Your task to perform on an android device: turn on location history Image 0: 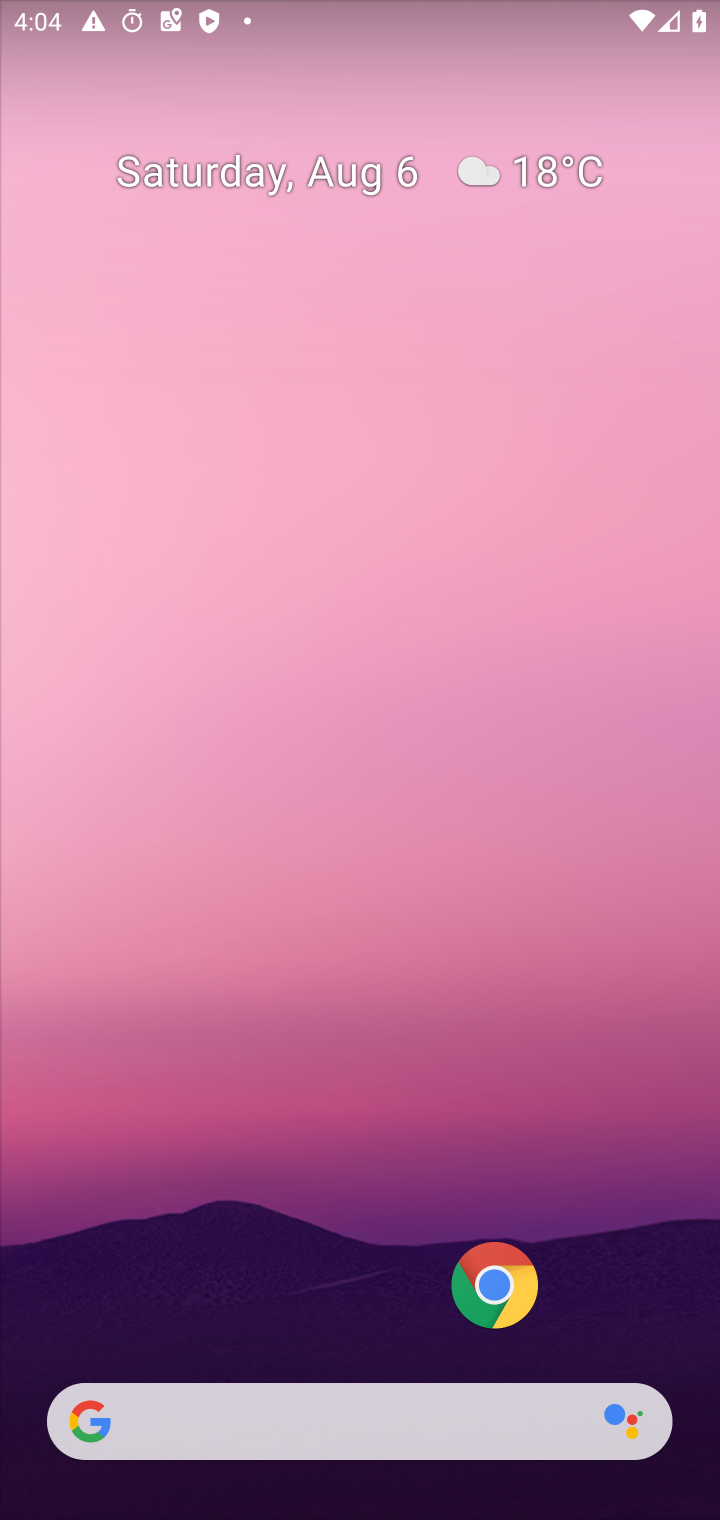
Step 0: press home button
Your task to perform on an android device: turn on location history Image 1: 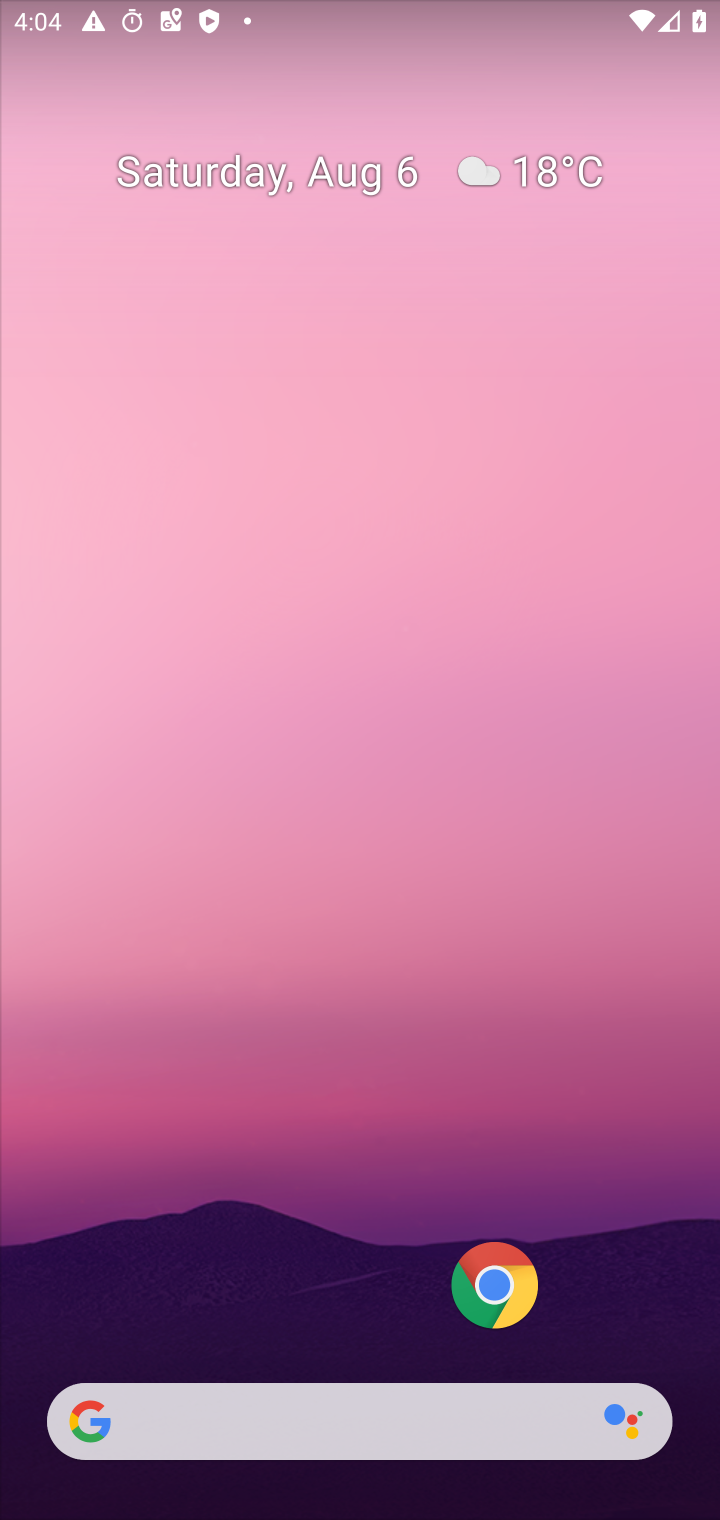
Step 1: drag from (363, 1131) to (380, 146)
Your task to perform on an android device: turn on location history Image 2: 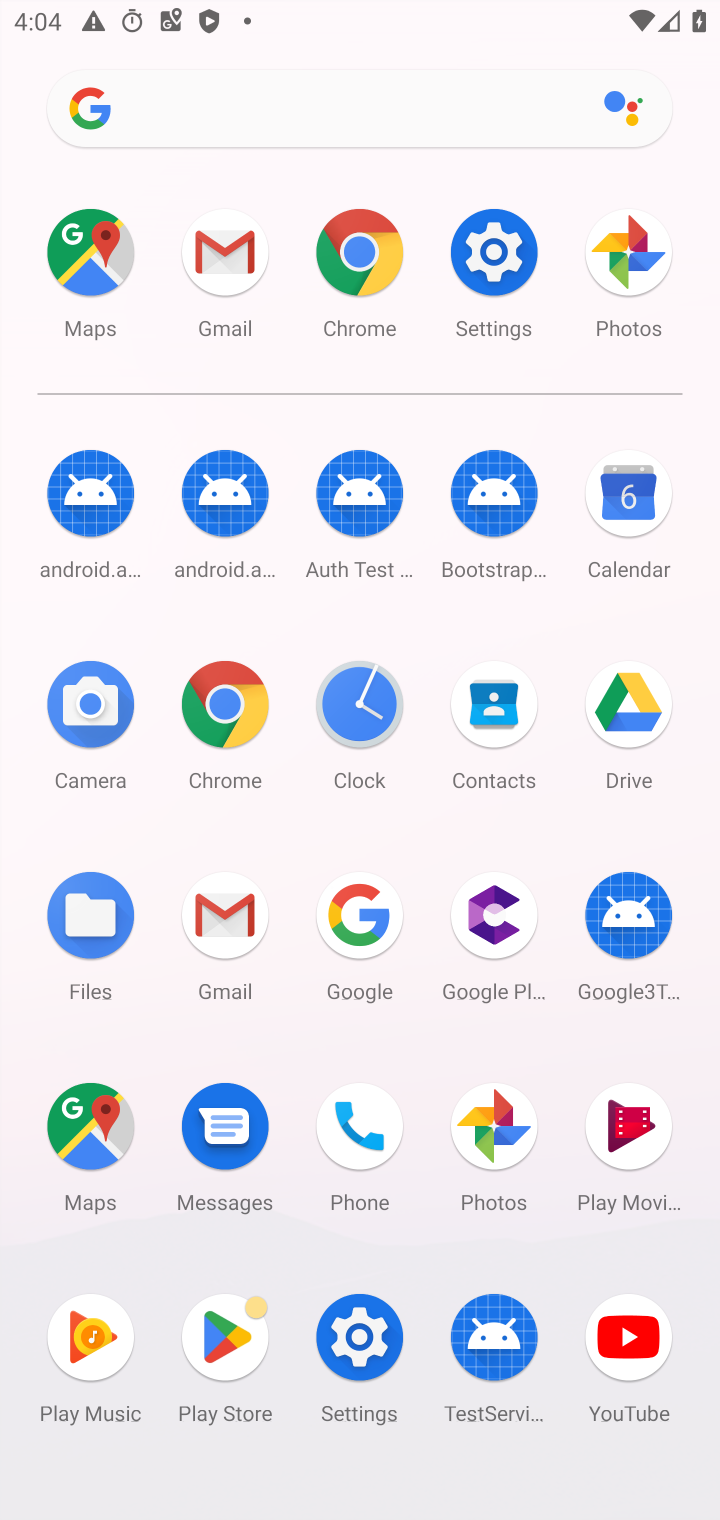
Step 2: click (489, 240)
Your task to perform on an android device: turn on location history Image 3: 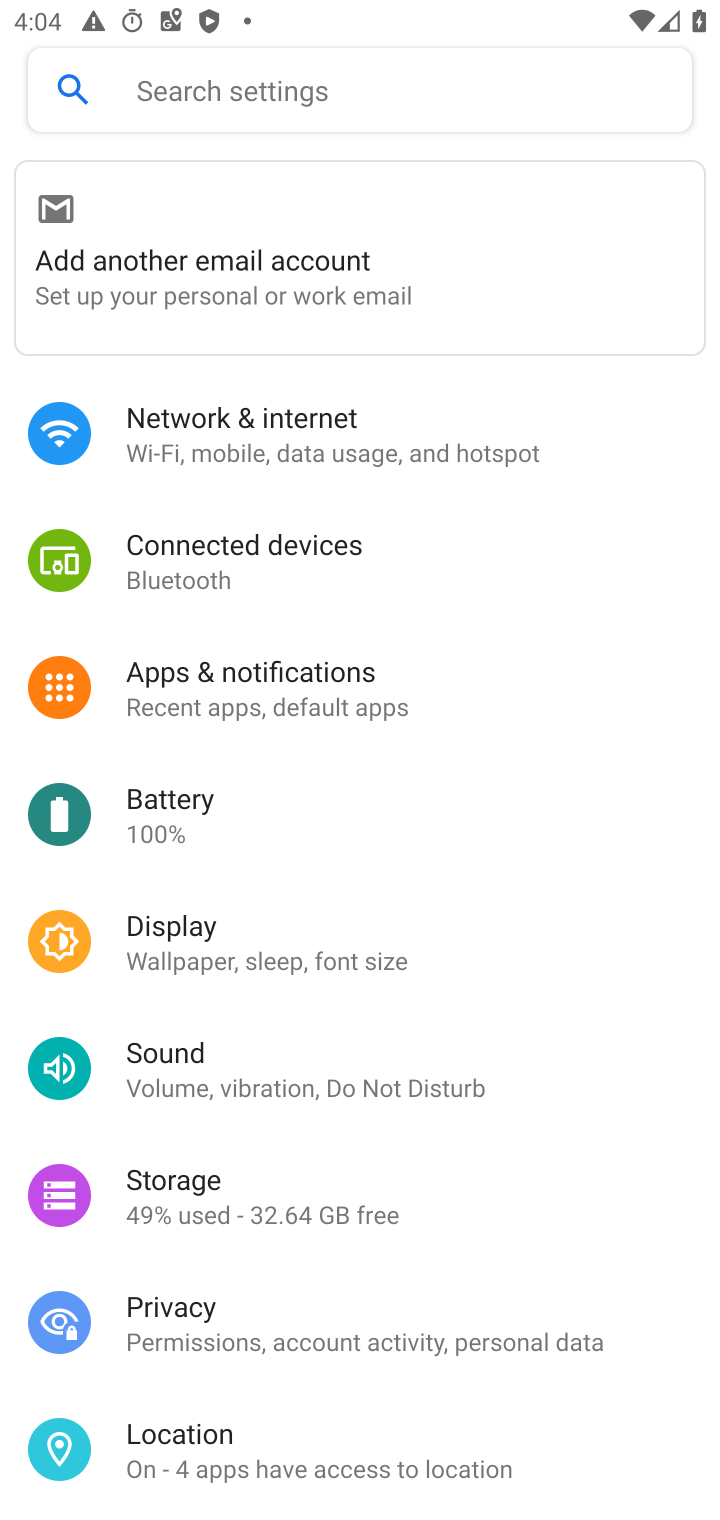
Step 3: click (263, 1438)
Your task to perform on an android device: turn on location history Image 4: 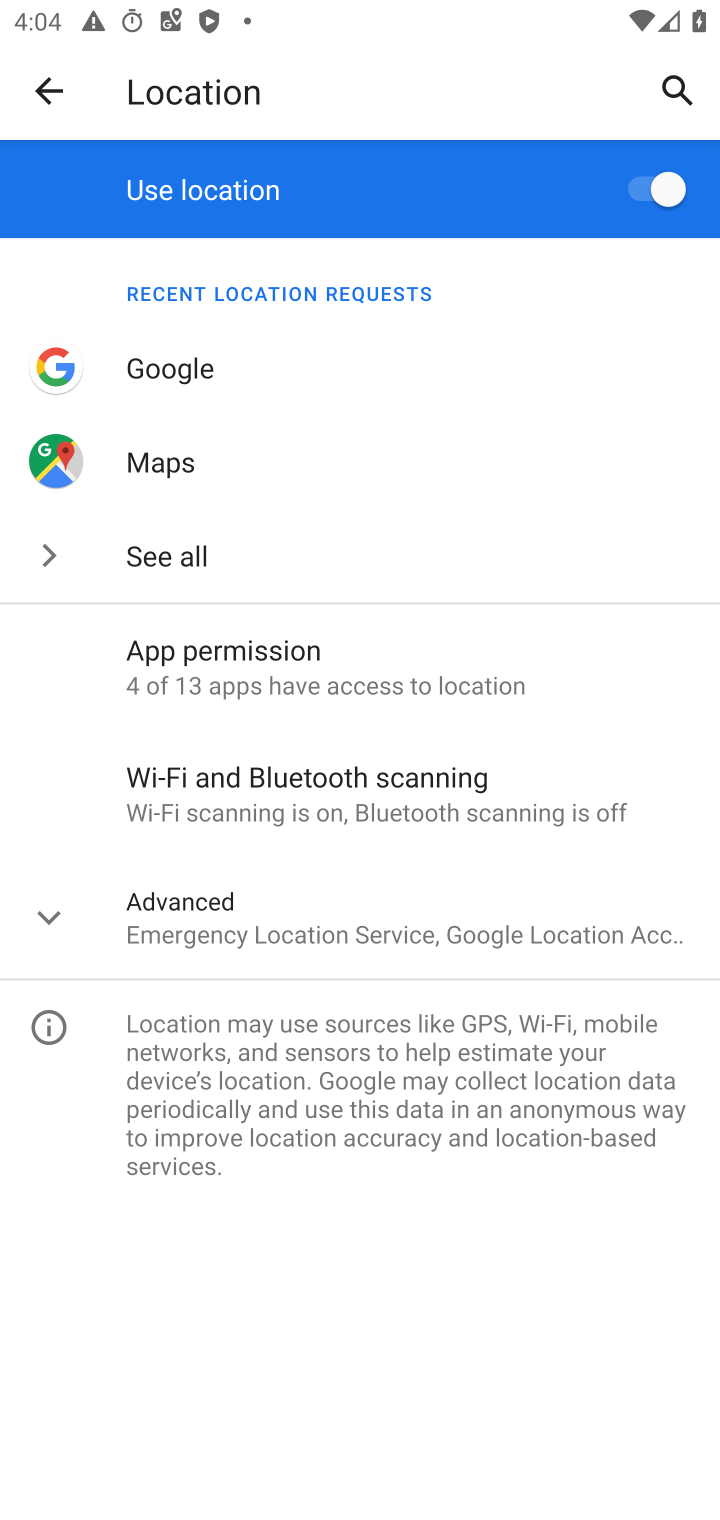
Step 4: click (121, 901)
Your task to perform on an android device: turn on location history Image 5: 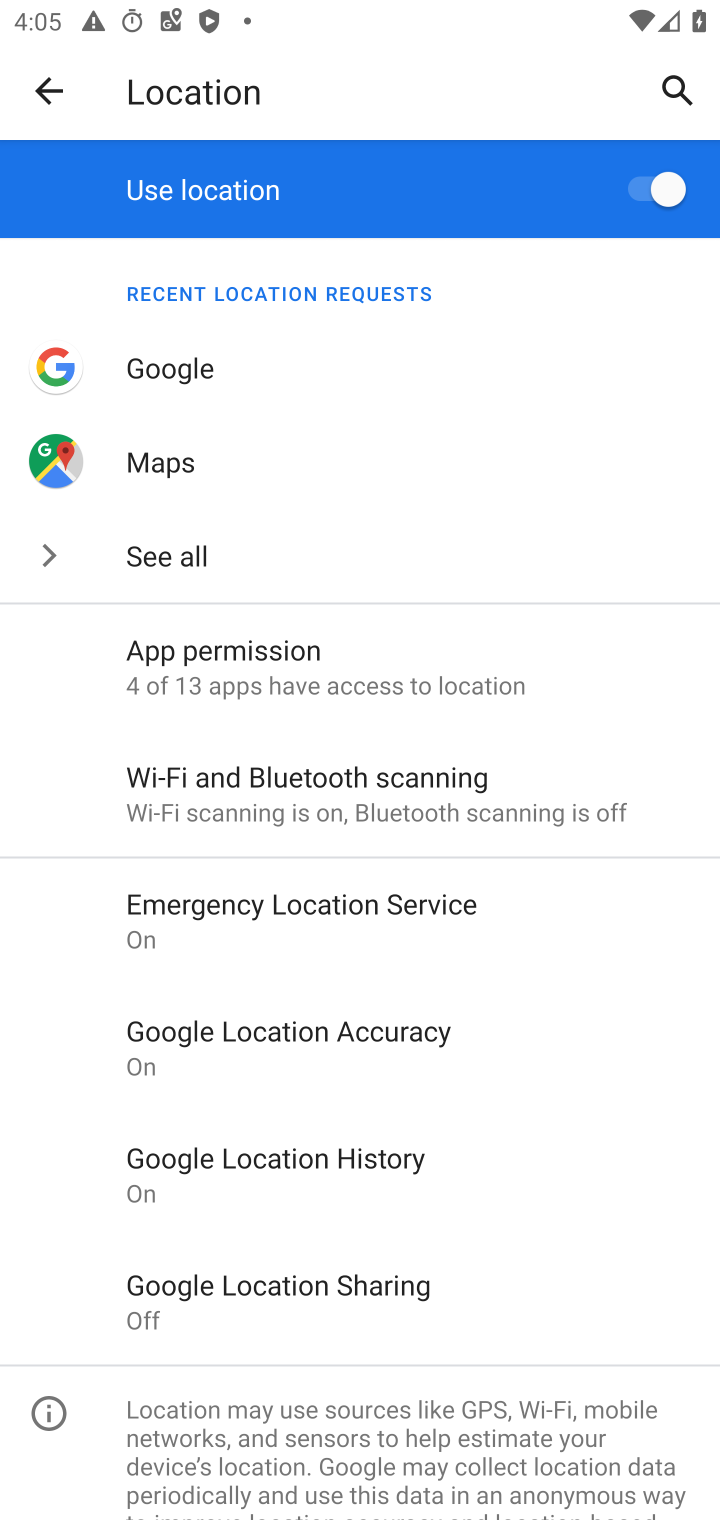
Step 5: click (338, 1161)
Your task to perform on an android device: turn on location history Image 6: 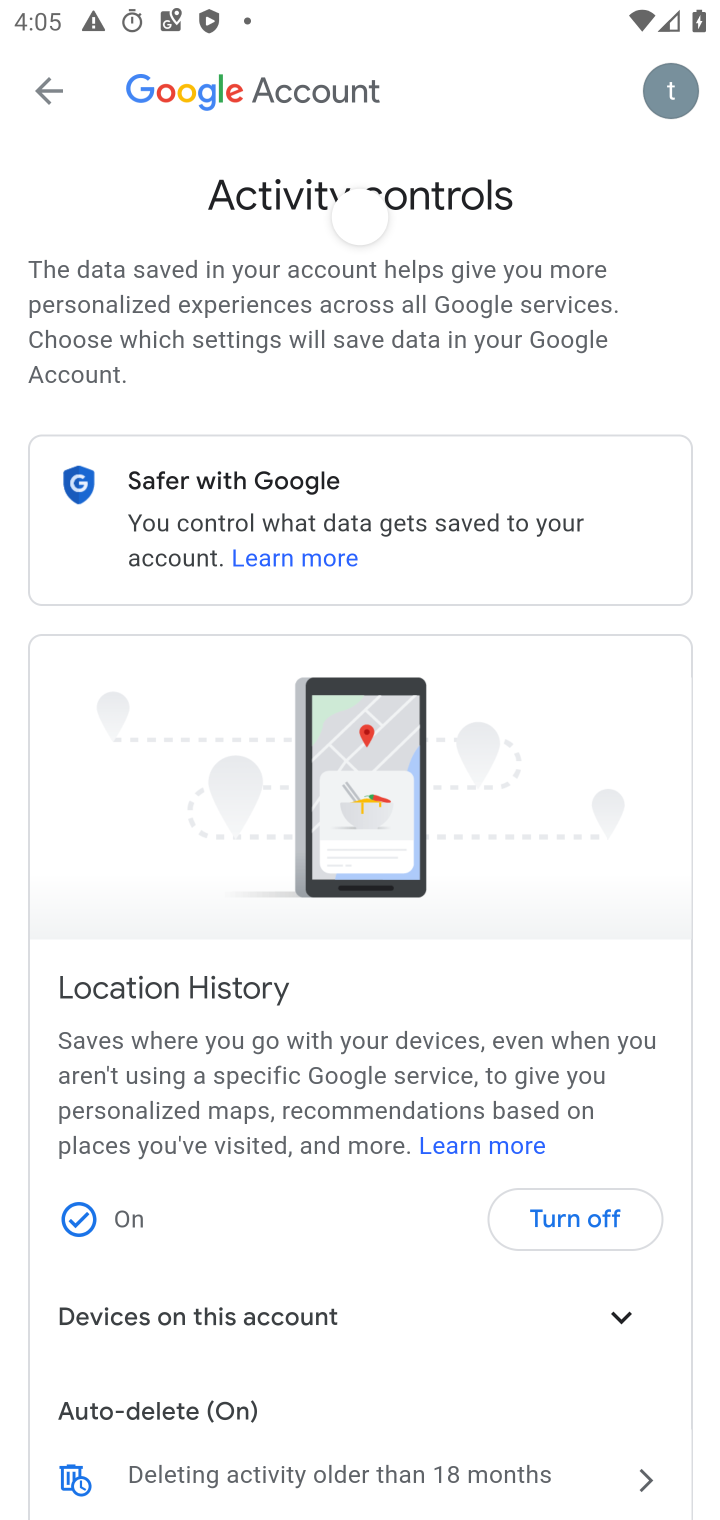
Step 6: task complete